Your task to perform on an android device: Go to ESPN.com Image 0: 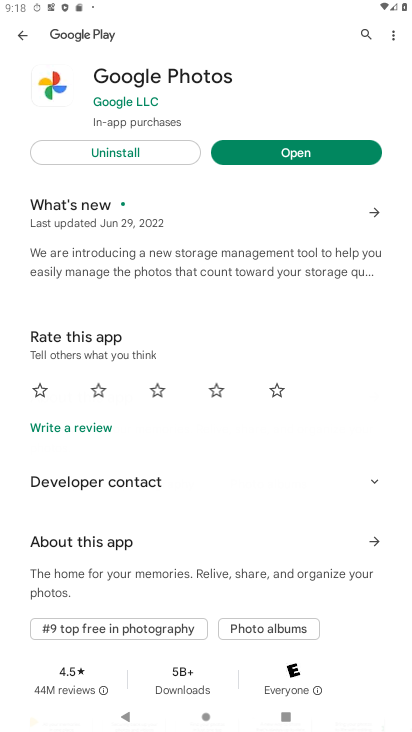
Step 0: press home button
Your task to perform on an android device: Go to ESPN.com Image 1: 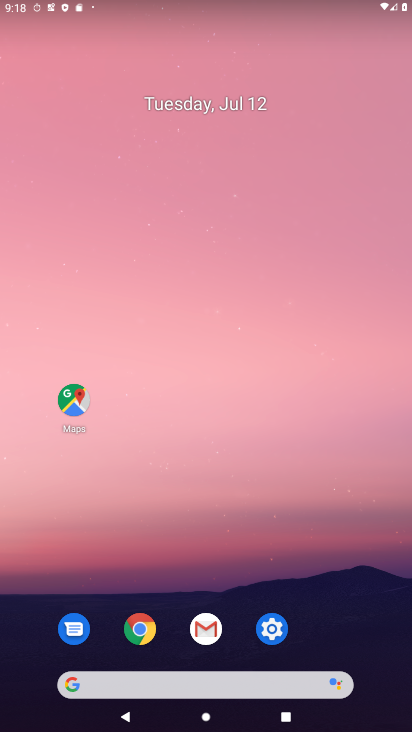
Step 1: click (138, 622)
Your task to perform on an android device: Go to ESPN.com Image 2: 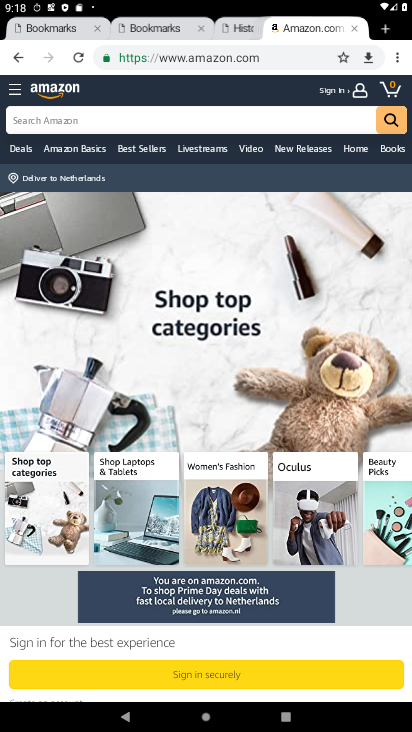
Step 2: click (388, 29)
Your task to perform on an android device: Go to ESPN.com Image 3: 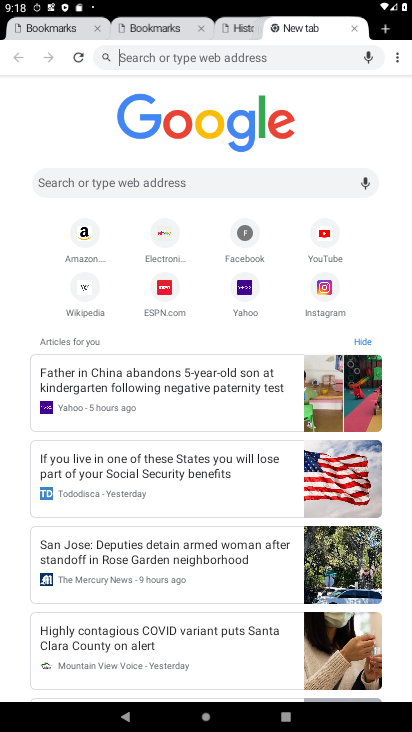
Step 3: click (159, 291)
Your task to perform on an android device: Go to ESPN.com Image 4: 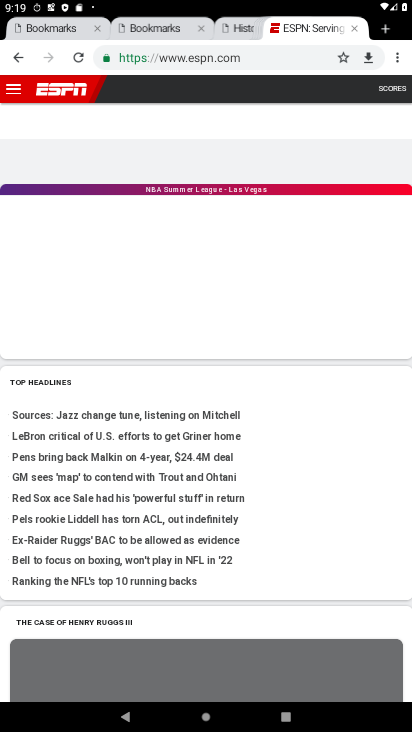
Step 4: task complete